Your task to perform on an android device: Go to Maps Image 0: 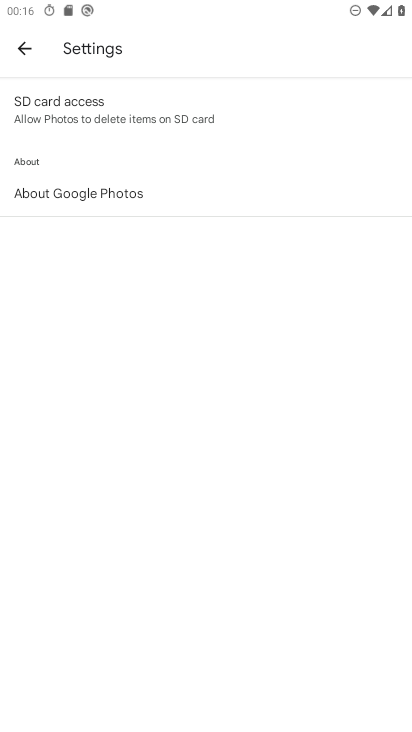
Step 0: press home button
Your task to perform on an android device: Go to Maps Image 1: 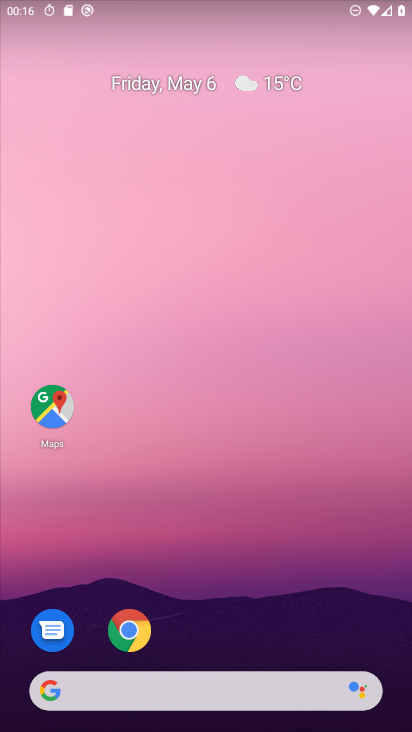
Step 1: click (47, 399)
Your task to perform on an android device: Go to Maps Image 2: 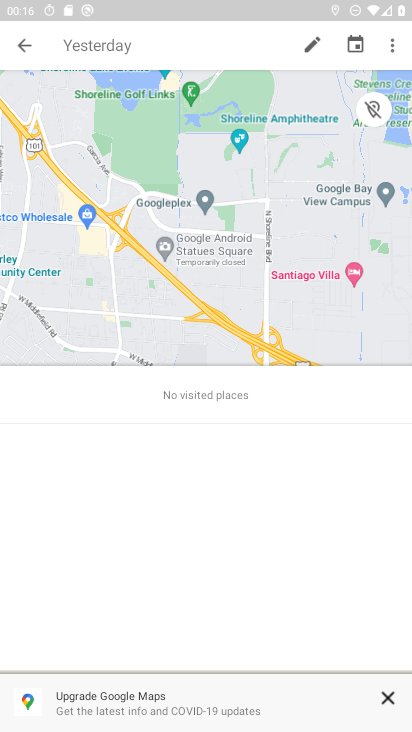
Step 2: task complete